Your task to perform on an android device: Go to battery settings Image 0: 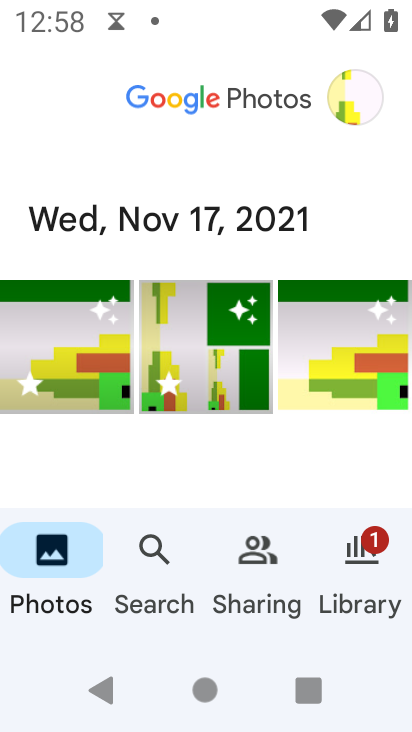
Step 0: press home button
Your task to perform on an android device: Go to battery settings Image 1: 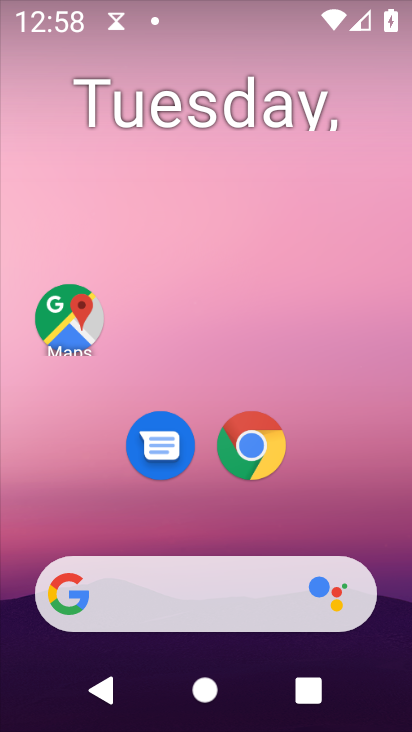
Step 1: drag from (286, 630) to (297, 64)
Your task to perform on an android device: Go to battery settings Image 2: 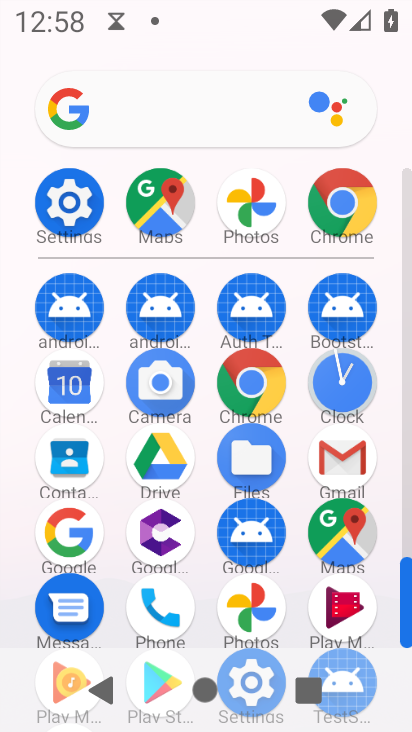
Step 2: click (87, 198)
Your task to perform on an android device: Go to battery settings Image 3: 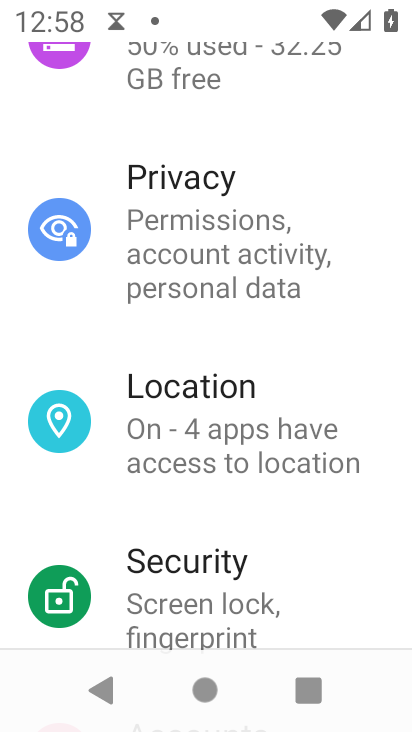
Step 3: drag from (221, 240) to (257, 643)
Your task to perform on an android device: Go to battery settings Image 4: 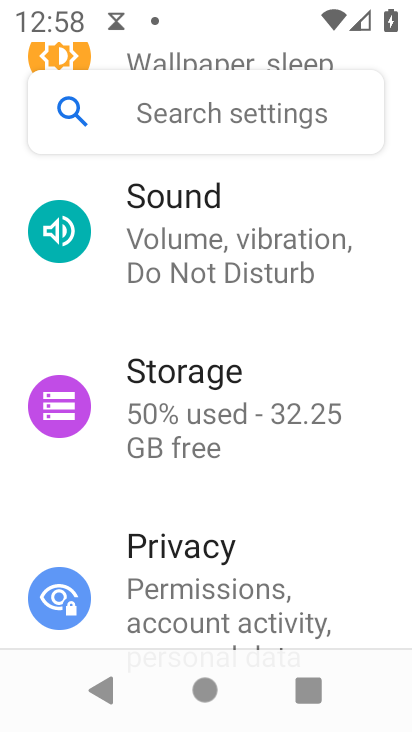
Step 4: drag from (276, 230) to (256, 634)
Your task to perform on an android device: Go to battery settings Image 5: 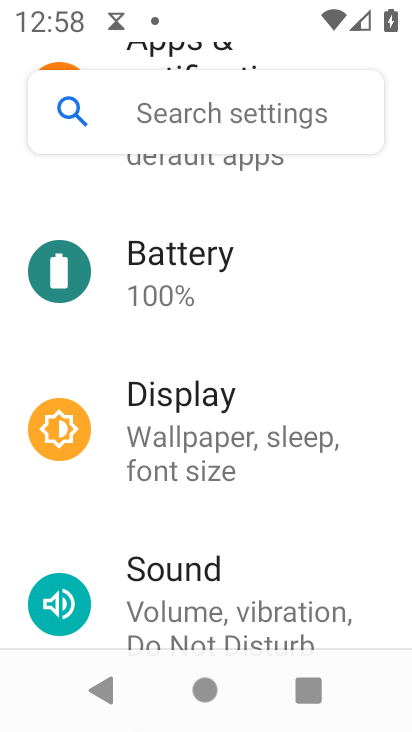
Step 5: click (248, 301)
Your task to perform on an android device: Go to battery settings Image 6: 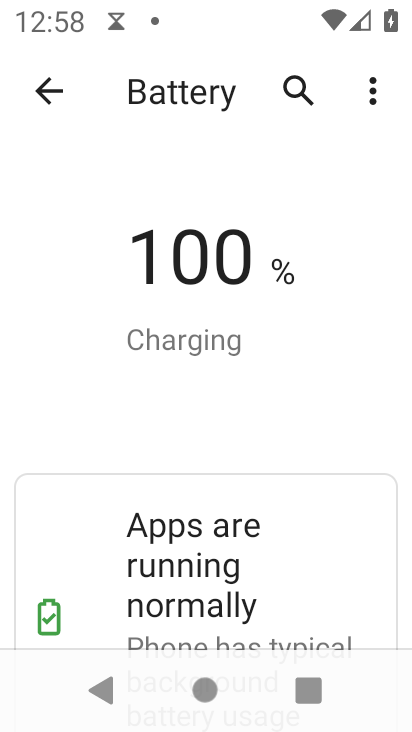
Step 6: task complete